Your task to perform on an android device: Go to Amazon Image 0: 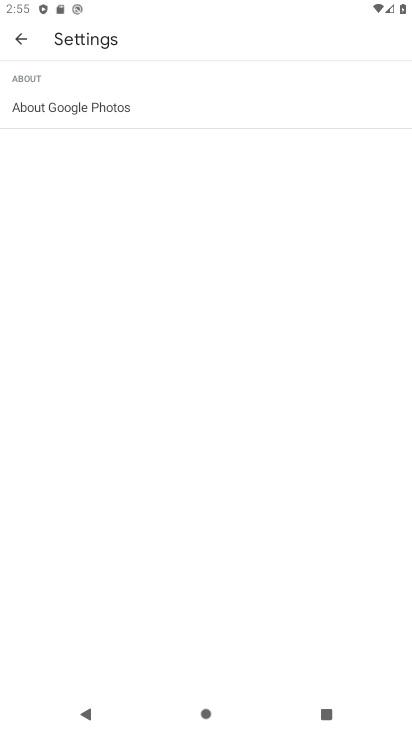
Step 0: press back button
Your task to perform on an android device: Go to Amazon Image 1: 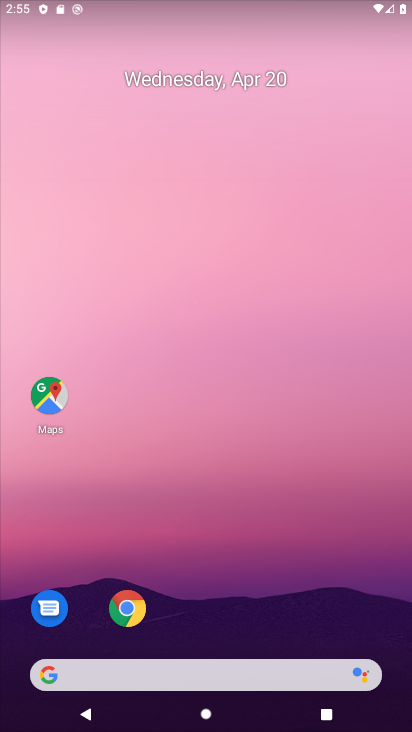
Step 1: click (125, 606)
Your task to perform on an android device: Go to Amazon Image 2: 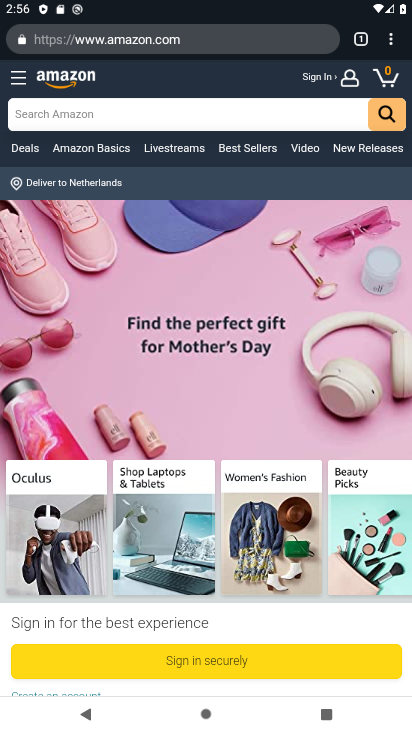
Step 2: task complete